Your task to perform on an android device: open the mobile data screen to see how much data has been used Image 0: 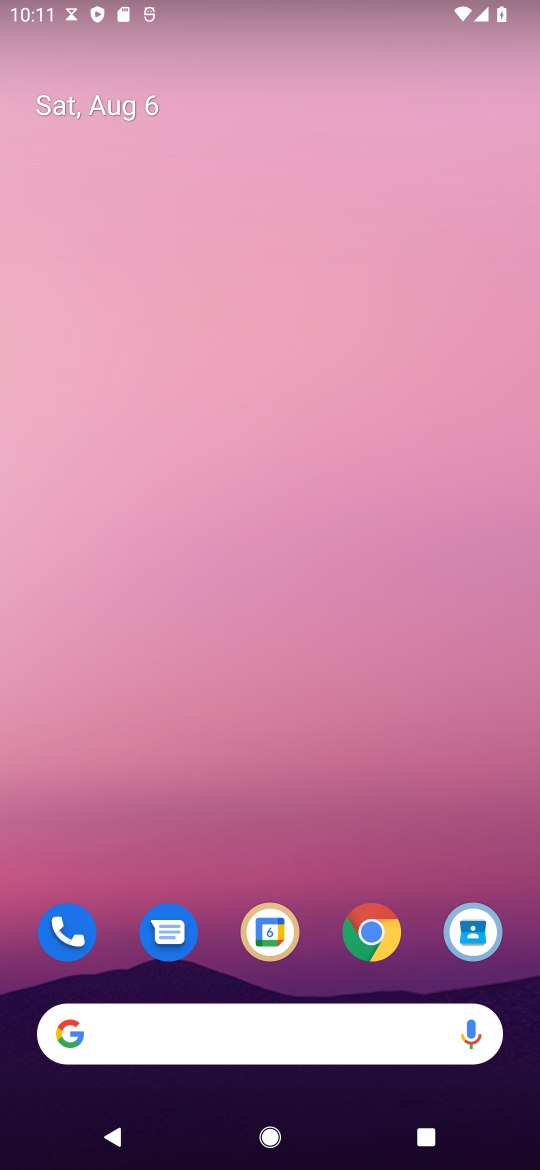
Step 0: press home button
Your task to perform on an android device: open the mobile data screen to see how much data has been used Image 1: 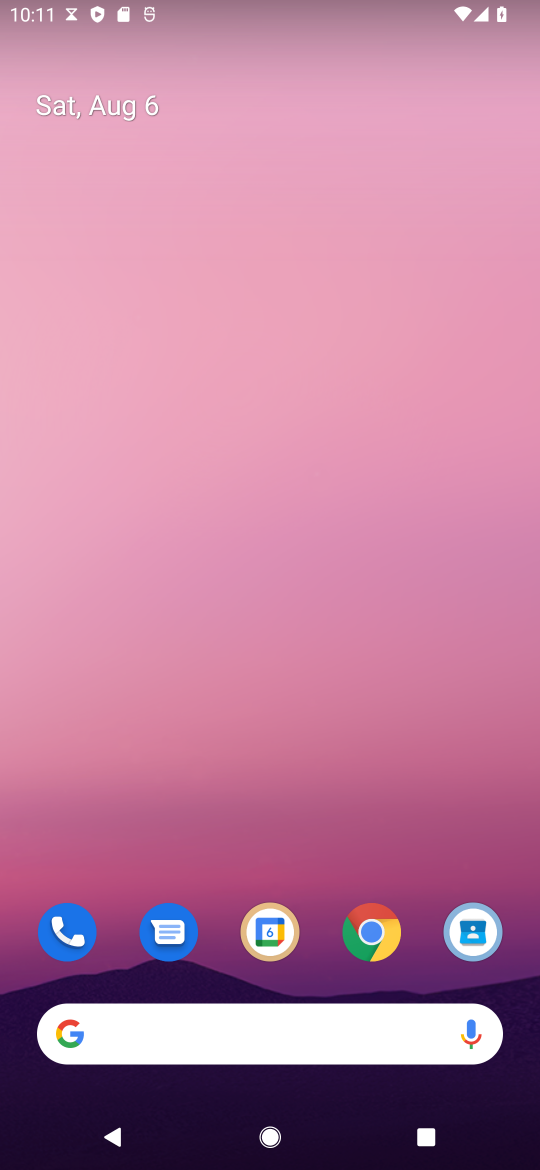
Step 1: drag from (171, 1040) to (195, 374)
Your task to perform on an android device: open the mobile data screen to see how much data has been used Image 2: 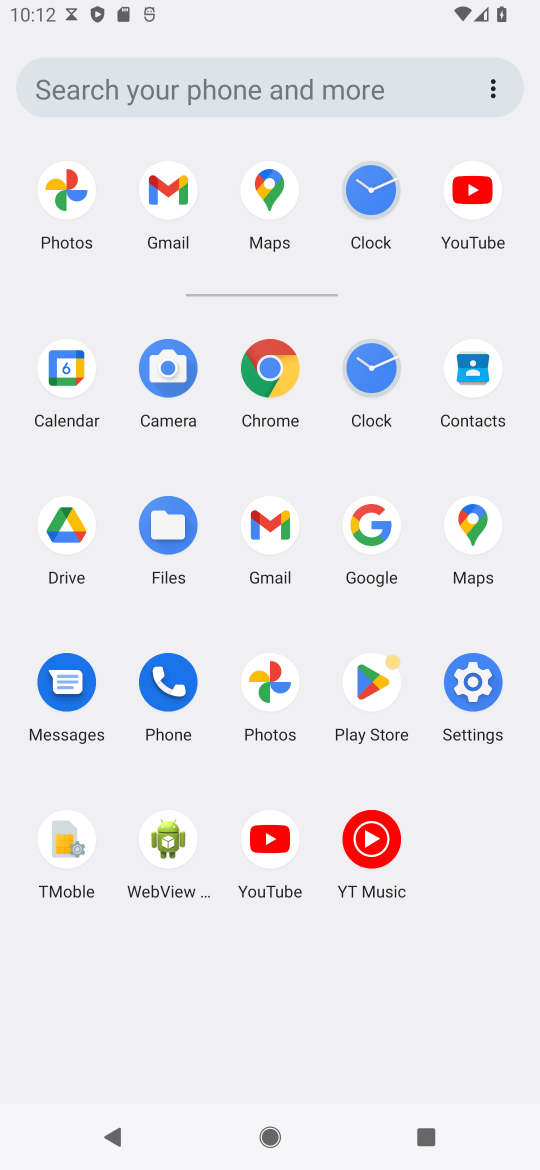
Step 2: click (472, 683)
Your task to perform on an android device: open the mobile data screen to see how much data has been used Image 3: 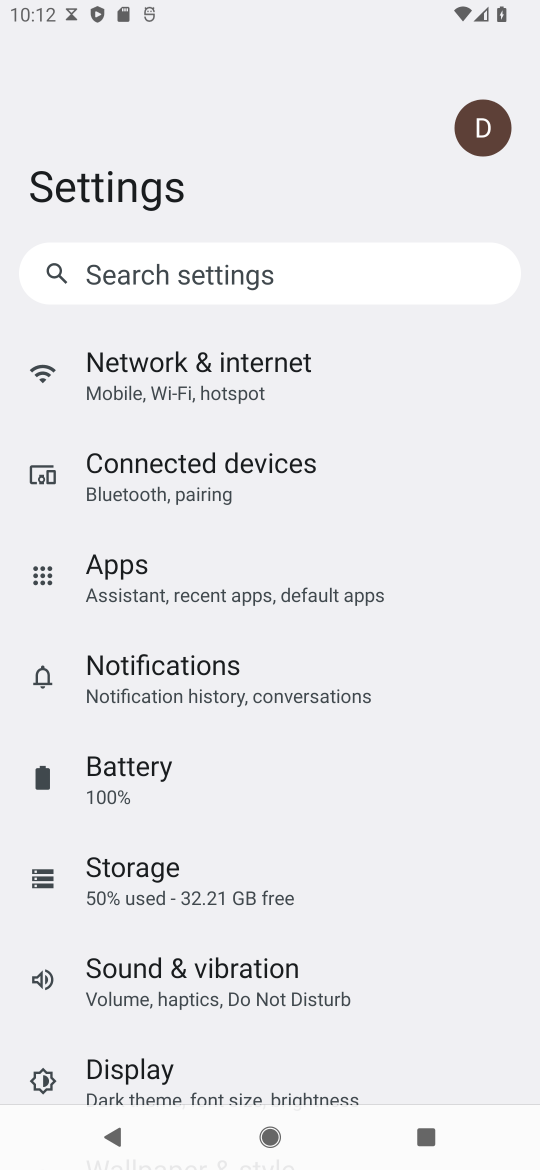
Step 3: click (218, 375)
Your task to perform on an android device: open the mobile data screen to see how much data has been used Image 4: 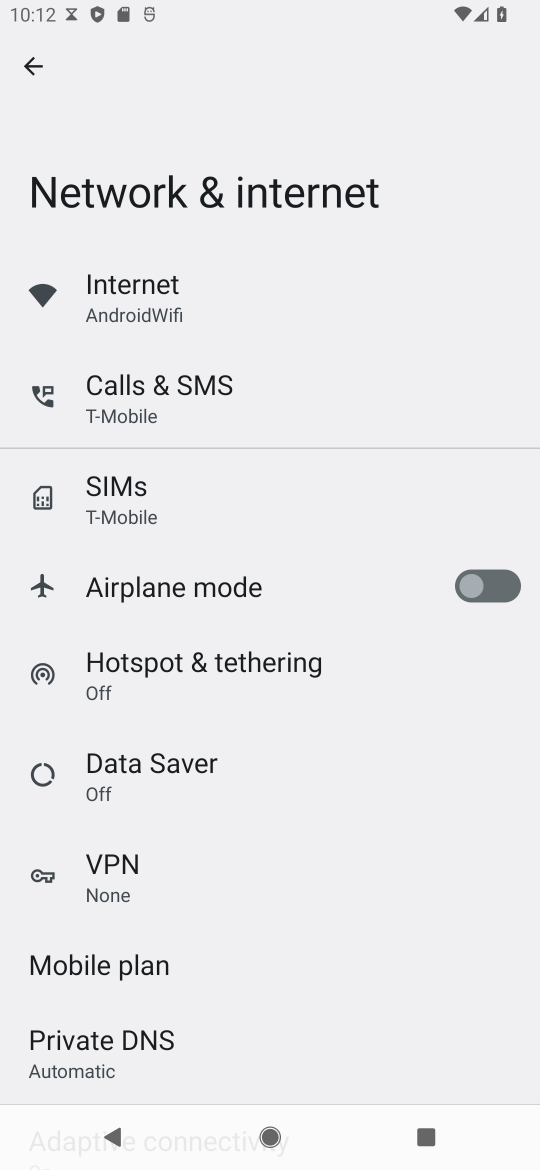
Step 4: click (153, 298)
Your task to perform on an android device: open the mobile data screen to see how much data has been used Image 5: 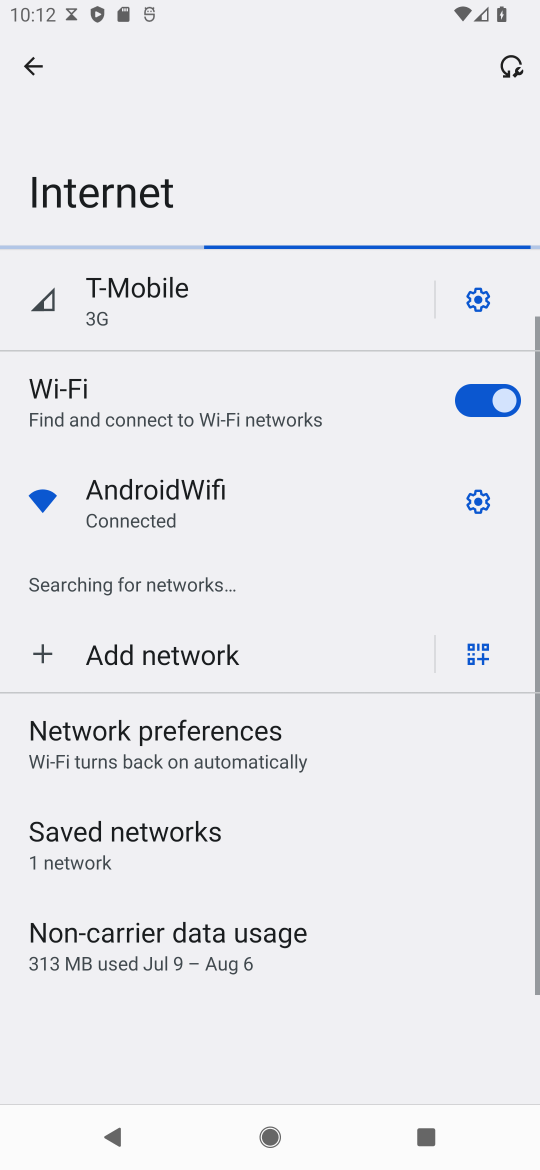
Step 5: click (469, 300)
Your task to perform on an android device: open the mobile data screen to see how much data has been used Image 6: 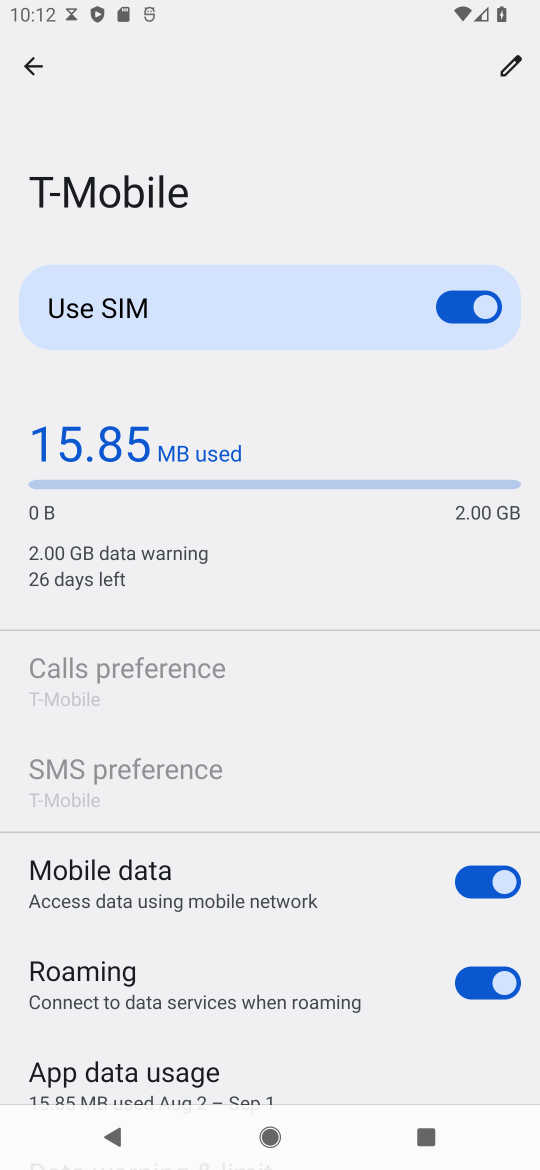
Step 6: task complete